Your task to perform on an android device: Open settings Image 0: 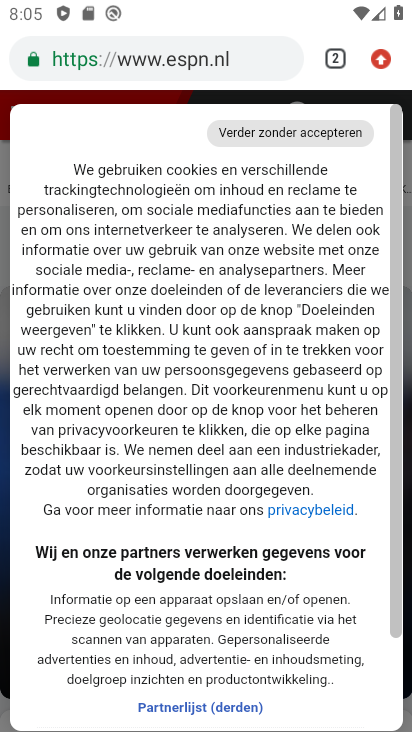
Step 0: press home button
Your task to perform on an android device: Open settings Image 1: 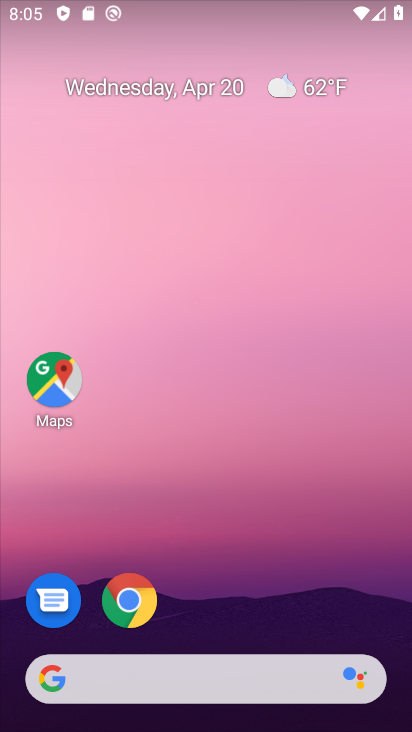
Step 1: drag from (205, 723) to (196, 227)
Your task to perform on an android device: Open settings Image 2: 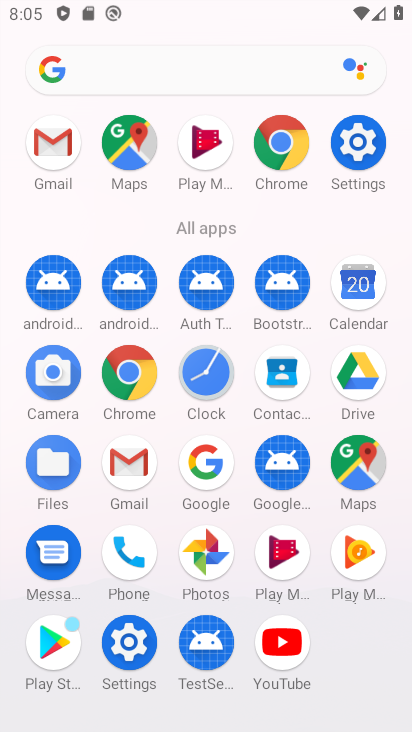
Step 2: click (357, 140)
Your task to perform on an android device: Open settings Image 3: 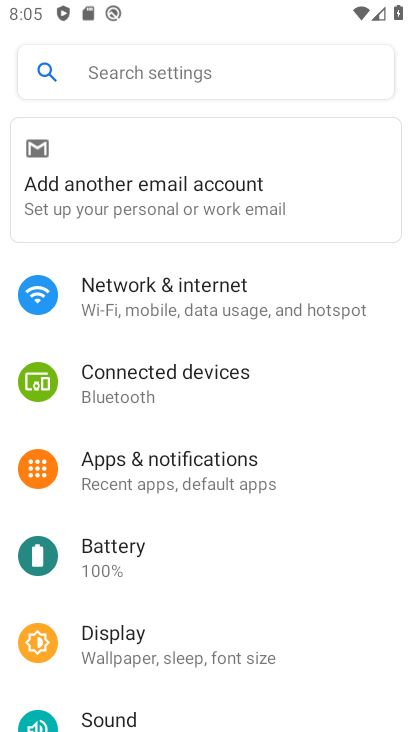
Step 3: task complete